Your task to perform on an android device: change the clock style Image 0: 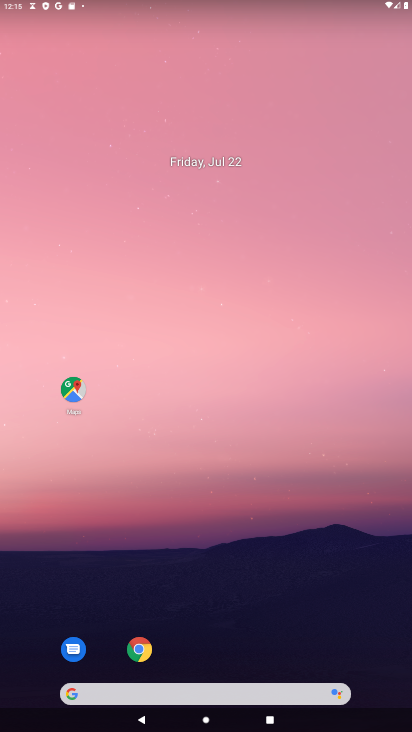
Step 0: drag from (295, 636) to (227, 231)
Your task to perform on an android device: change the clock style Image 1: 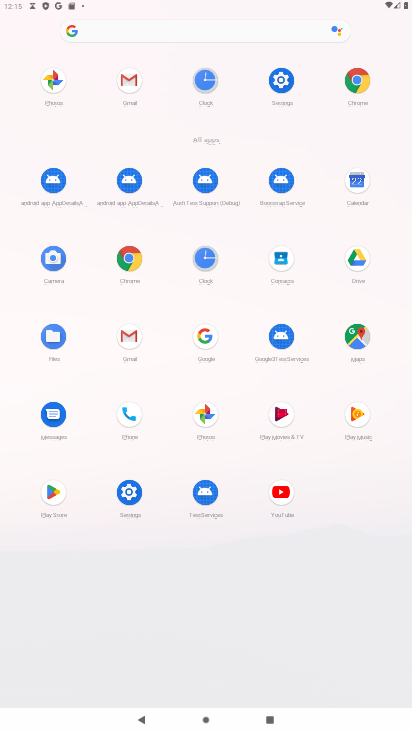
Step 1: click (211, 252)
Your task to perform on an android device: change the clock style Image 2: 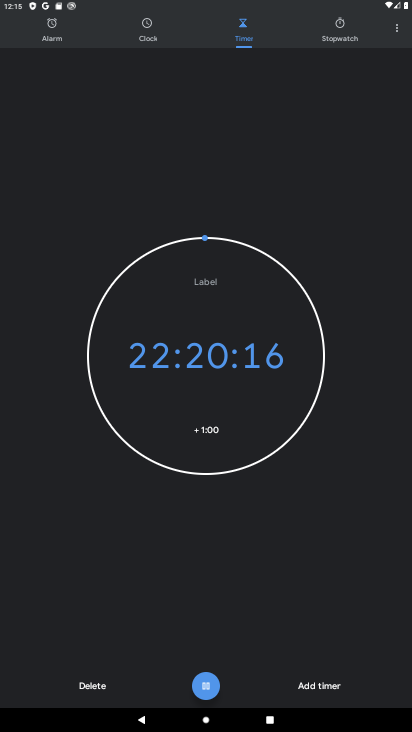
Step 2: click (398, 23)
Your task to perform on an android device: change the clock style Image 3: 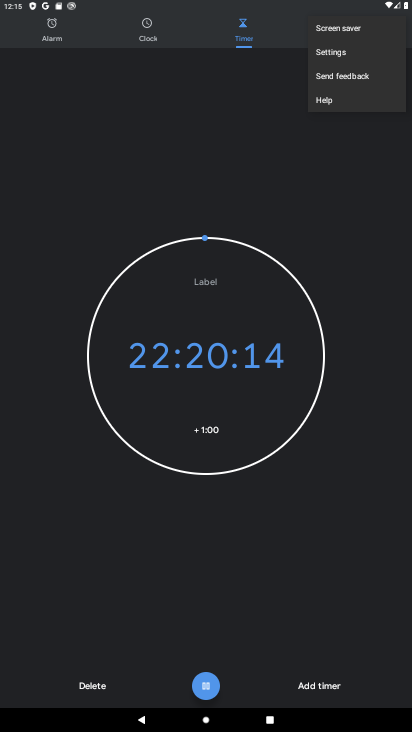
Step 3: click (335, 54)
Your task to perform on an android device: change the clock style Image 4: 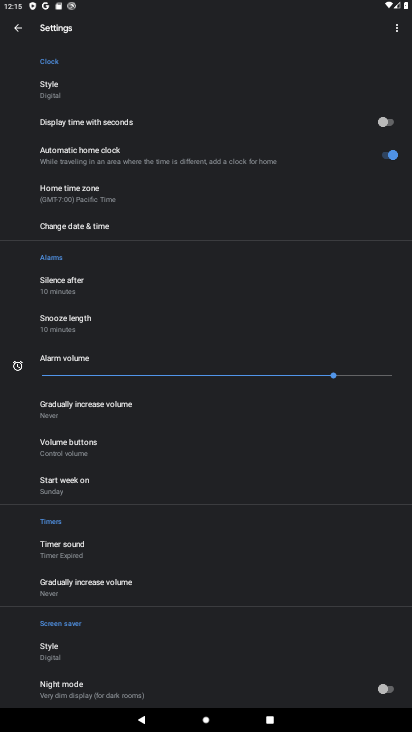
Step 4: click (127, 87)
Your task to perform on an android device: change the clock style Image 5: 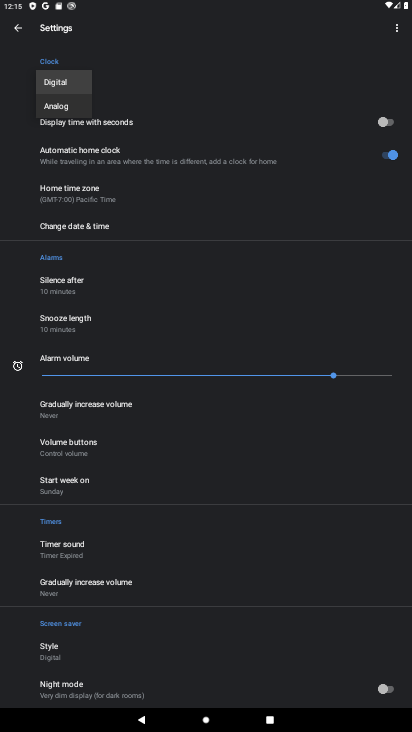
Step 5: click (73, 109)
Your task to perform on an android device: change the clock style Image 6: 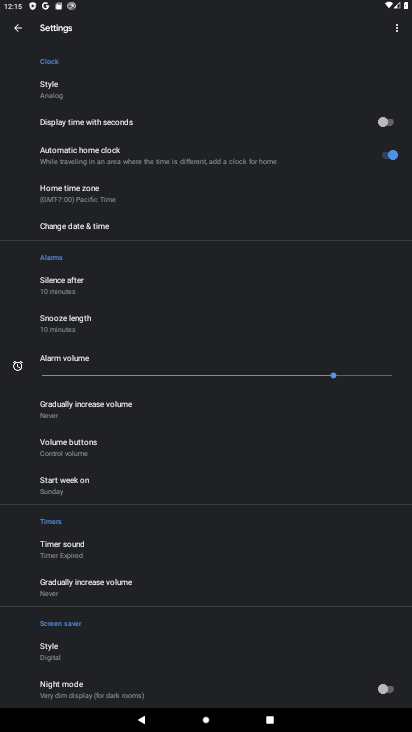
Step 6: task complete